Your task to perform on an android device: clear all cookies in the chrome app Image 0: 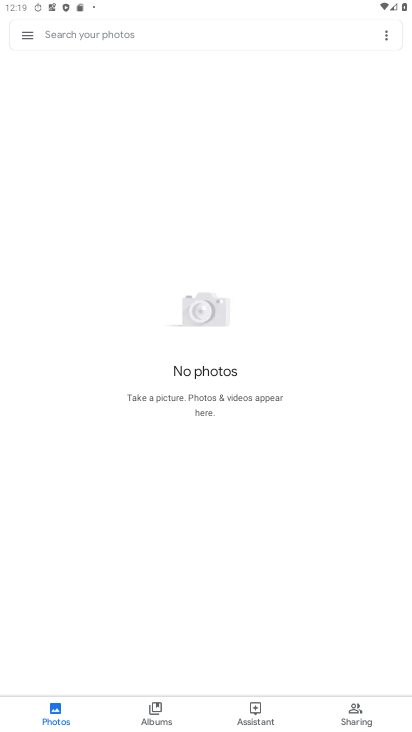
Step 0: press home button
Your task to perform on an android device: clear all cookies in the chrome app Image 1: 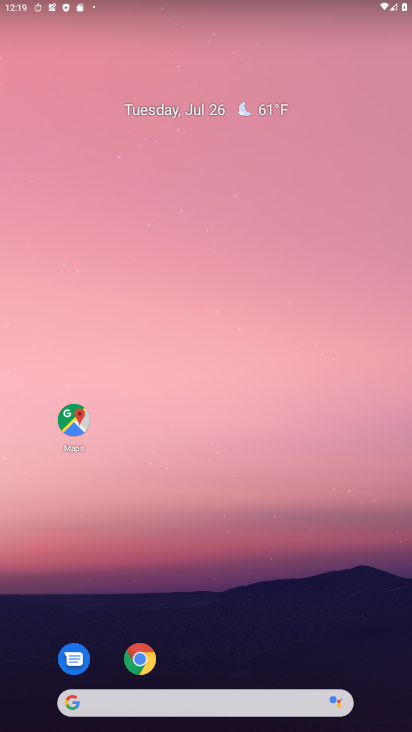
Step 1: click (133, 657)
Your task to perform on an android device: clear all cookies in the chrome app Image 2: 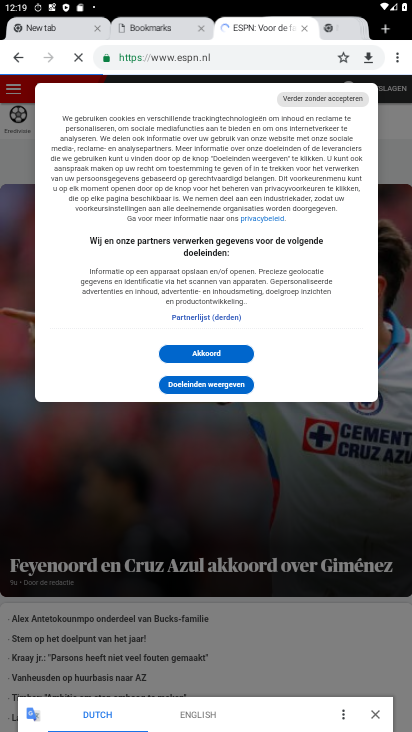
Step 2: click (393, 55)
Your task to perform on an android device: clear all cookies in the chrome app Image 3: 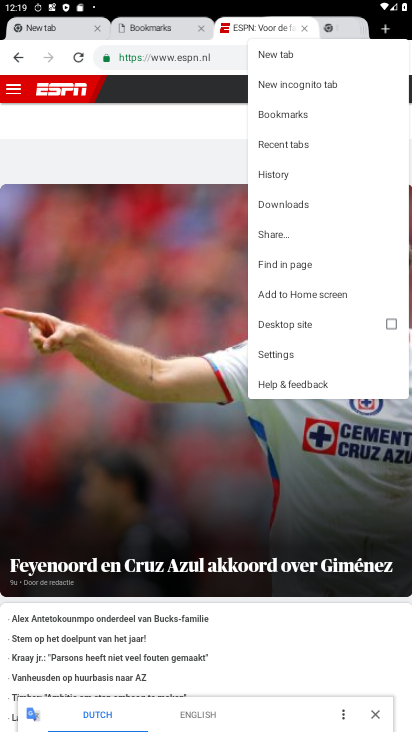
Step 3: click (287, 357)
Your task to perform on an android device: clear all cookies in the chrome app Image 4: 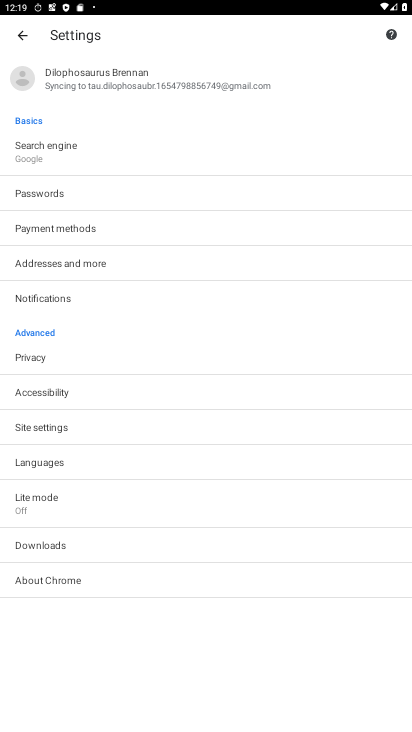
Step 4: click (54, 414)
Your task to perform on an android device: clear all cookies in the chrome app Image 5: 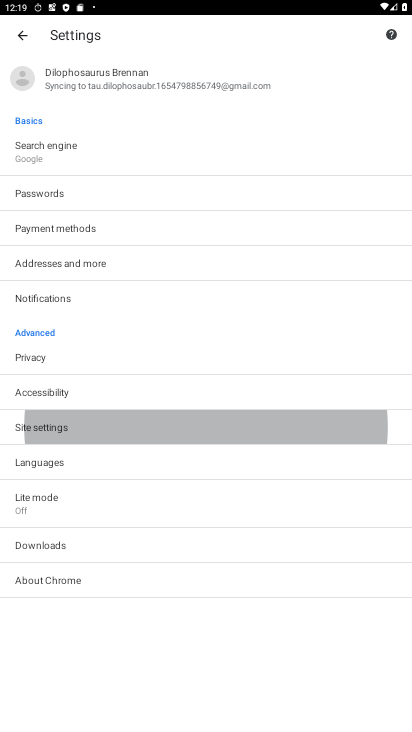
Step 5: click (54, 421)
Your task to perform on an android device: clear all cookies in the chrome app Image 6: 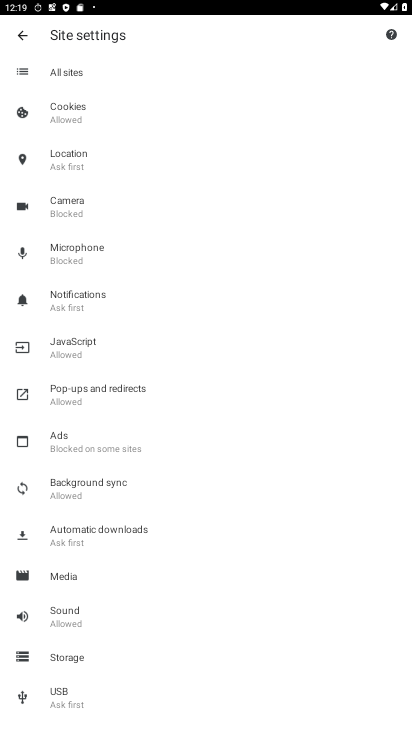
Step 6: click (83, 108)
Your task to perform on an android device: clear all cookies in the chrome app Image 7: 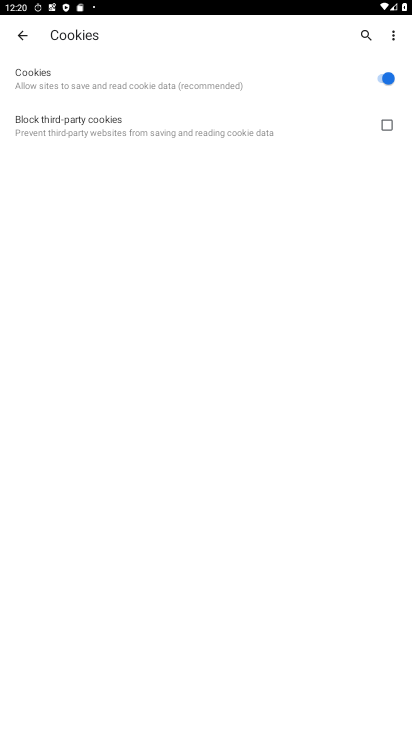
Step 7: task complete